Your task to perform on an android device: turn off data saver in the chrome app Image 0: 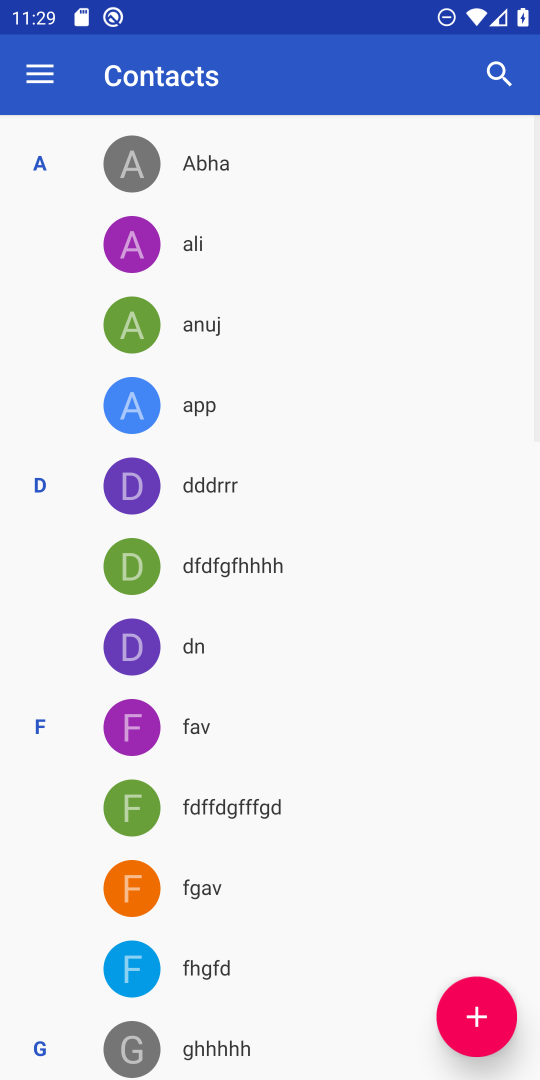
Step 0: press home button
Your task to perform on an android device: turn off data saver in the chrome app Image 1: 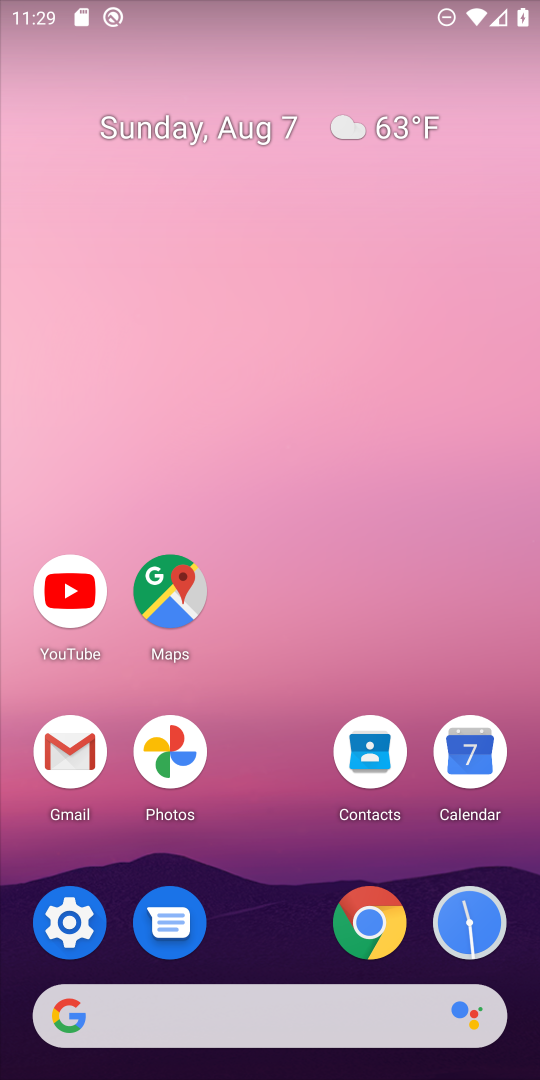
Step 1: click (373, 910)
Your task to perform on an android device: turn off data saver in the chrome app Image 2: 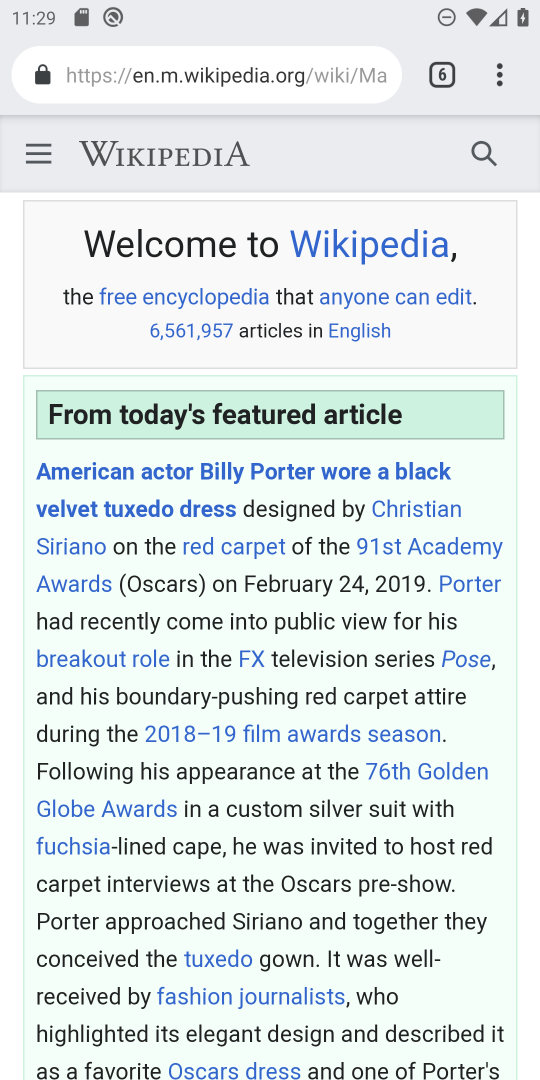
Step 2: click (503, 58)
Your task to perform on an android device: turn off data saver in the chrome app Image 3: 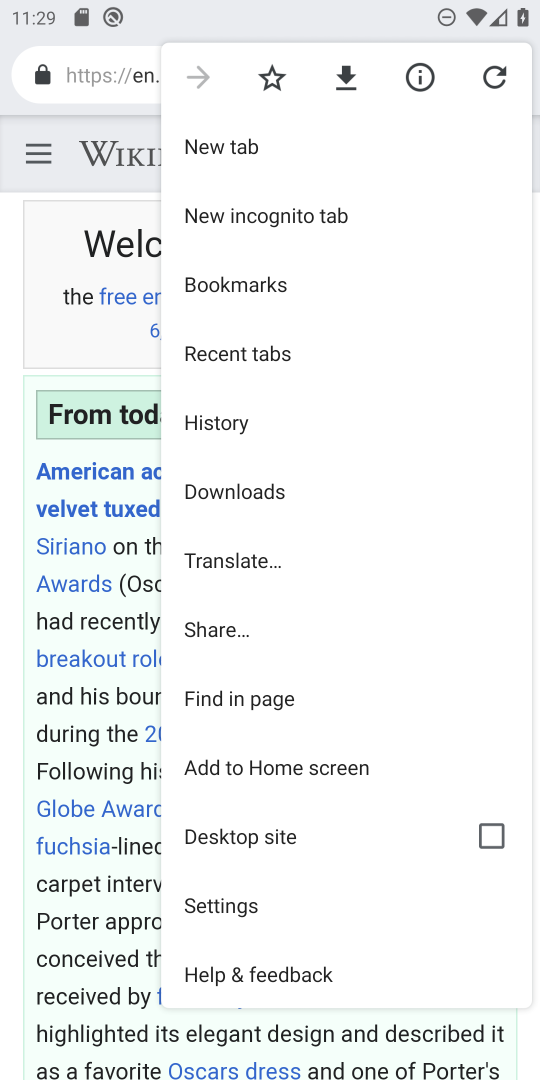
Step 3: click (243, 901)
Your task to perform on an android device: turn off data saver in the chrome app Image 4: 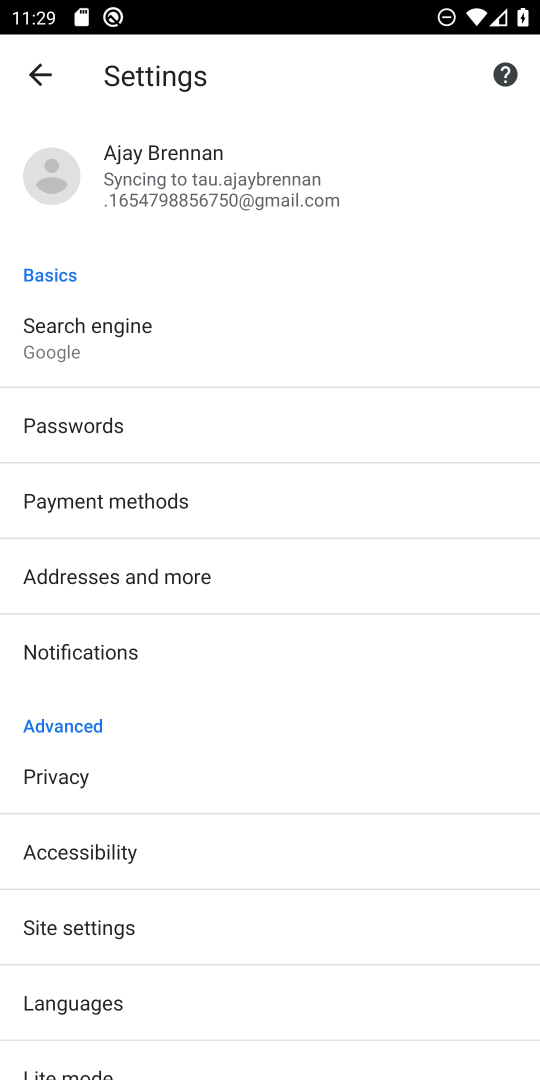
Step 4: drag from (323, 977) to (308, 671)
Your task to perform on an android device: turn off data saver in the chrome app Image 5: 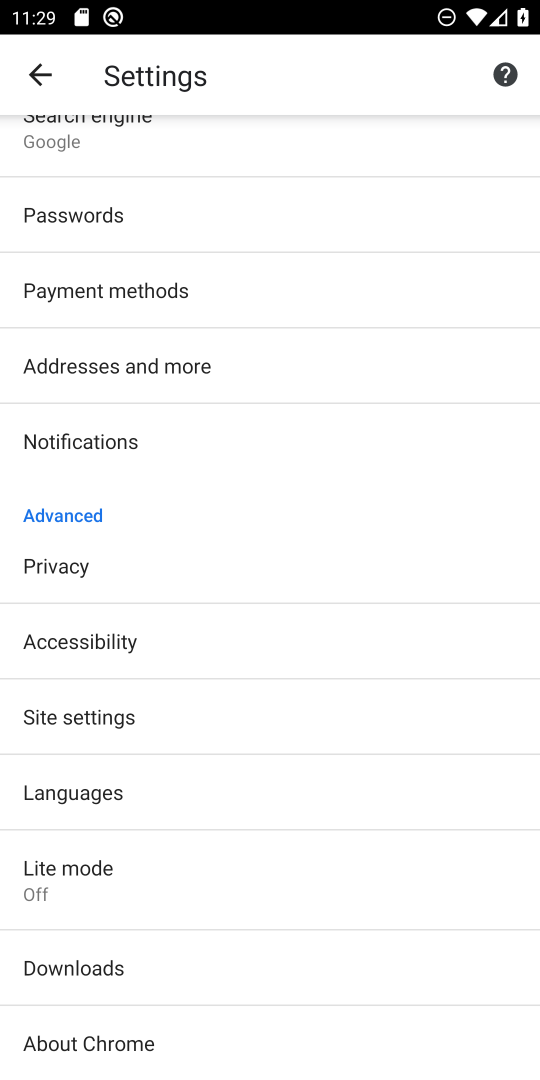
Step 5: click (89, 869)
Your task to perform on an android device: turn off data saver in the chrome app Image 6: 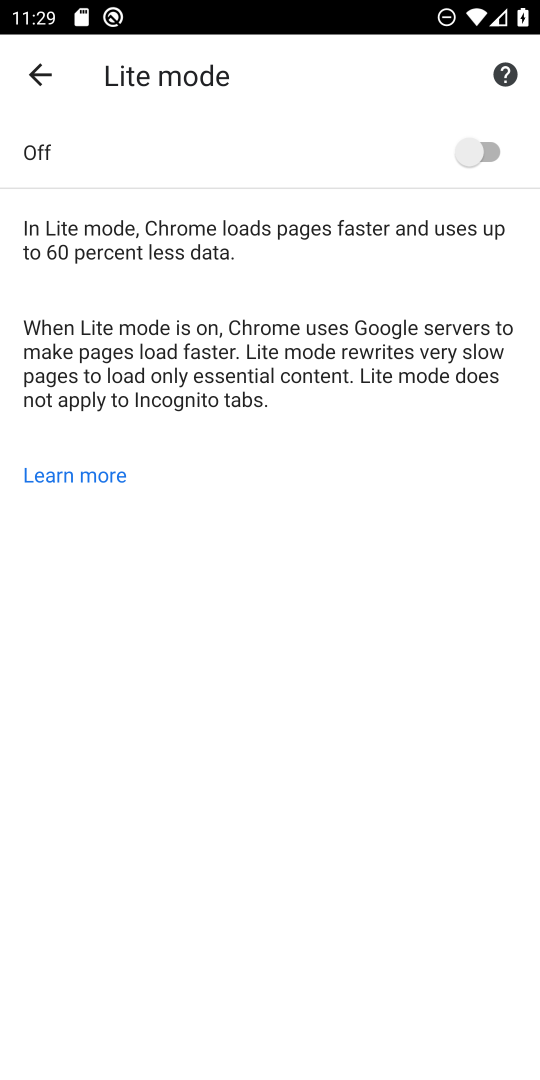
Step 6: task complete